Your task to perform on an android device: Open eBay Image 0: 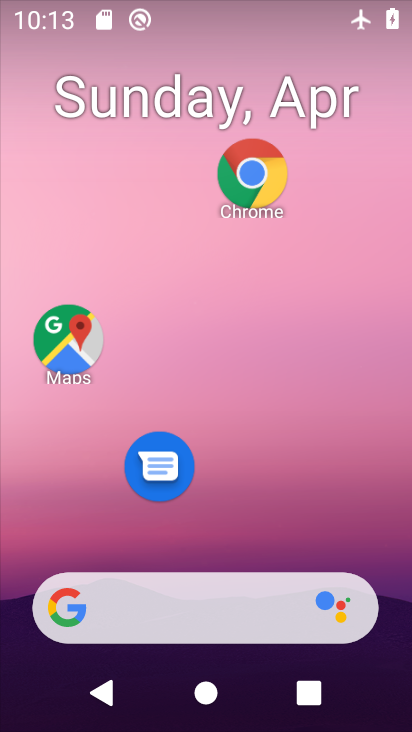
Step 0: click (276, 179)
Your task to perform on an android device: Open eBay Image 1: 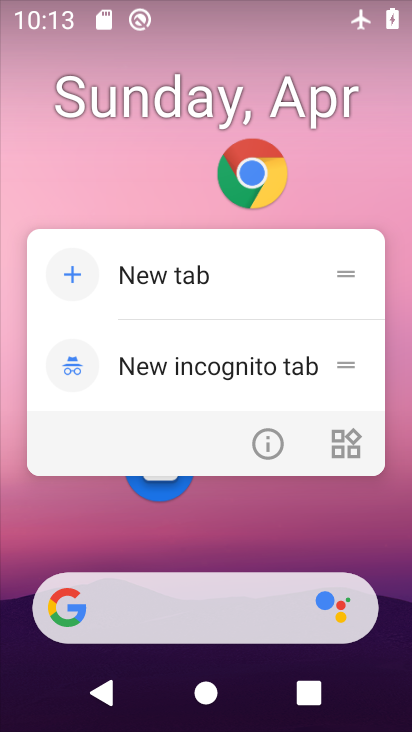
Step 1: click (276, 179)
Your task to perform on an android device: Open eBay Image 2: 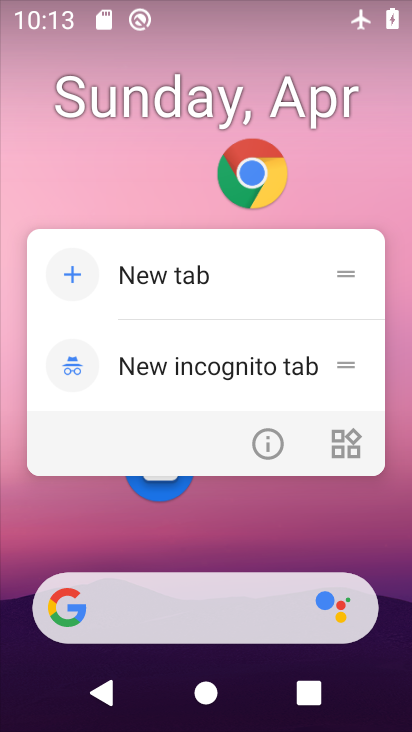
Step 2: click (276, 179)
Your task to perform on an android device: Open eBay Image 3: 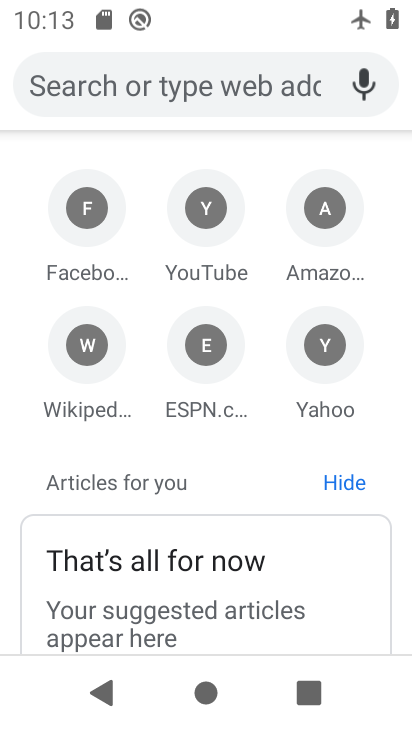
Step 3: task complete